Your task to perform on an android device: remove spam from my inbox in the gmail app Image 0: 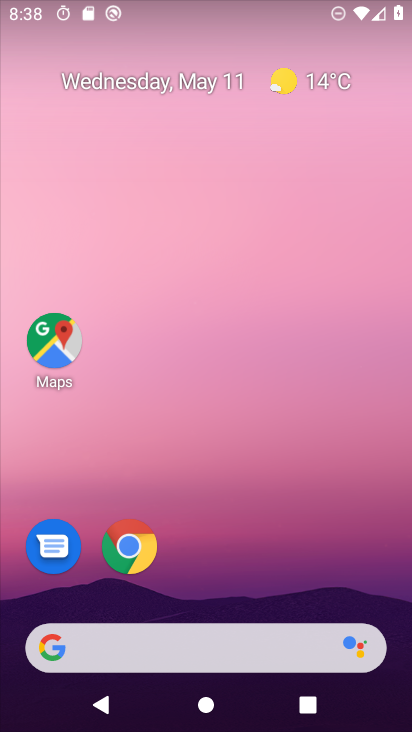
Step 0: drag from (225, 632) to (221, 279)
Your task to perform on an android device: remove spam from my inbox in the gmail app Image 1: 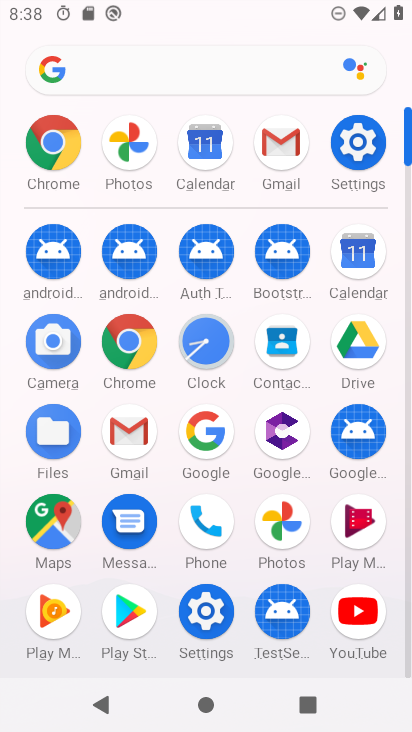
Step 1: click (130, 443)
Your task to perform on an android device: remove spam from my inbox in the gmail app Image 2: 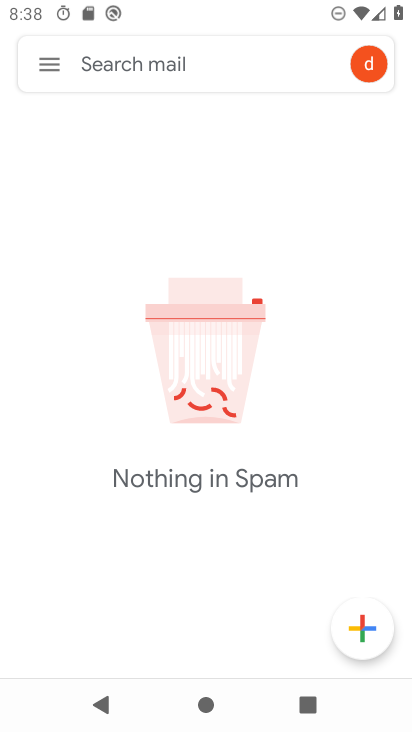
Step 2: click (36, 74)
Your task to perform on an android device: remove spam from my inbox in the gmail app Image 3: 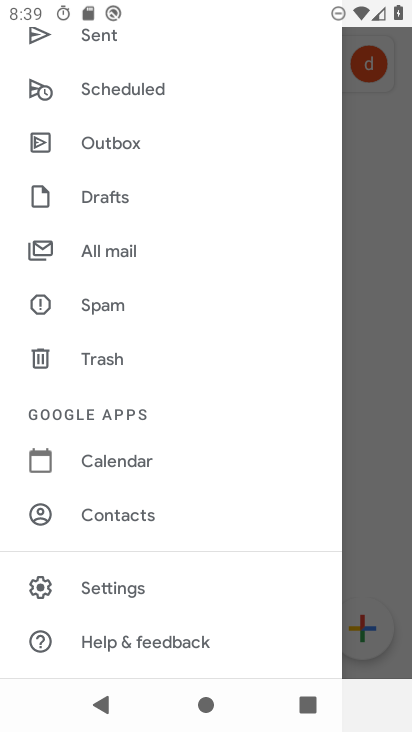
Step 3: click (115, 311)
Your task to perform on an android device: remove spam from my inbox in the gmail app Image 4: 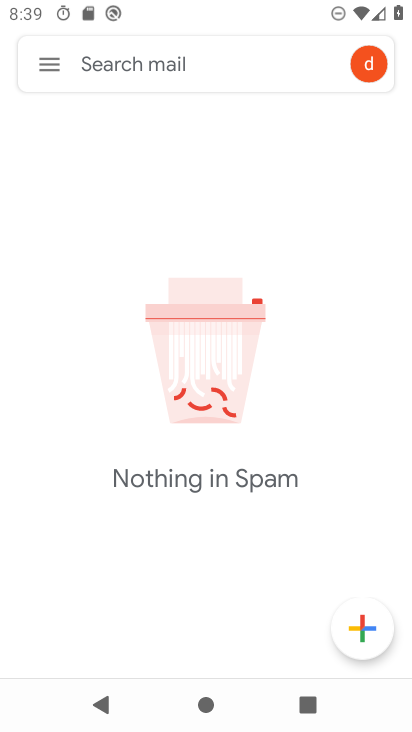
Step 4: task complete